Your task to perform on an android device: Is it going to rain this weekend? Image 0: 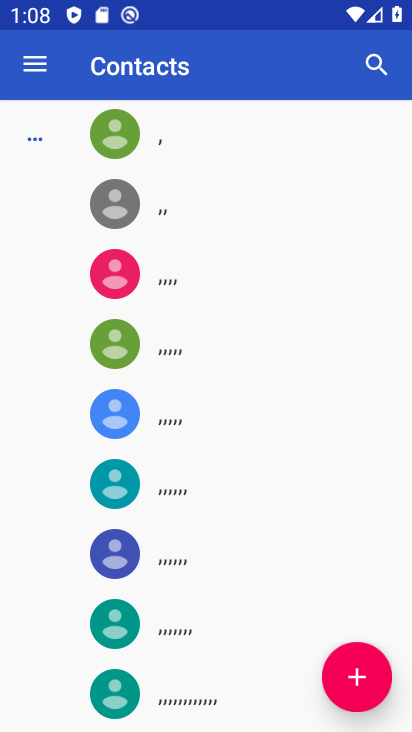
Step 0: press back button
Your task to perform on an android device: Is it going to rain this weekend? Image 1: 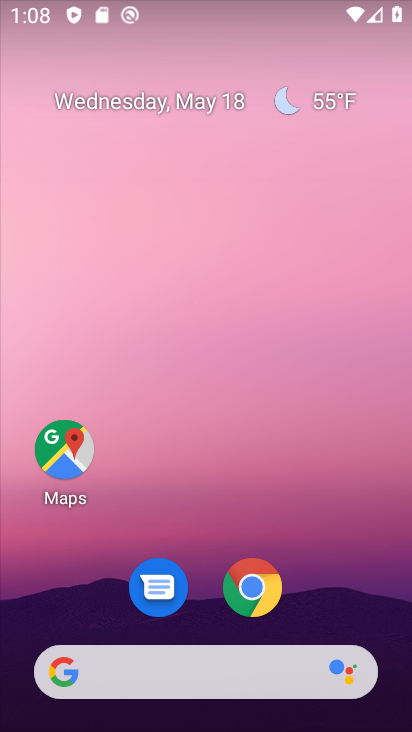
Step 1: click (336, 99)
Your task to perform on an android device: Is it going to rain this weekend? Image 2: 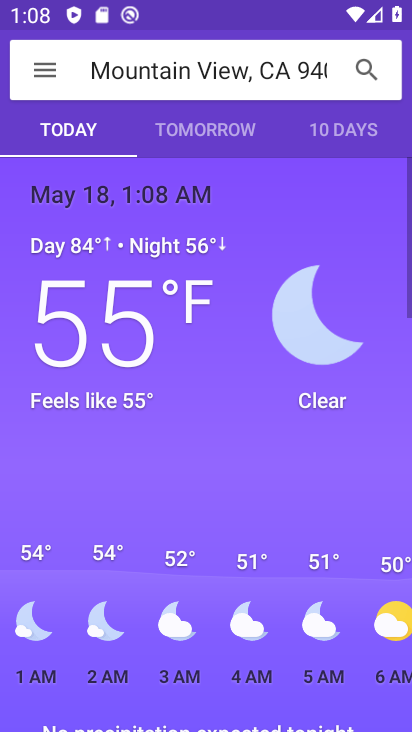
Step 2: click (333, 120)
Your task to perform on an android device: Is it going to rain this weekend? Image 3: 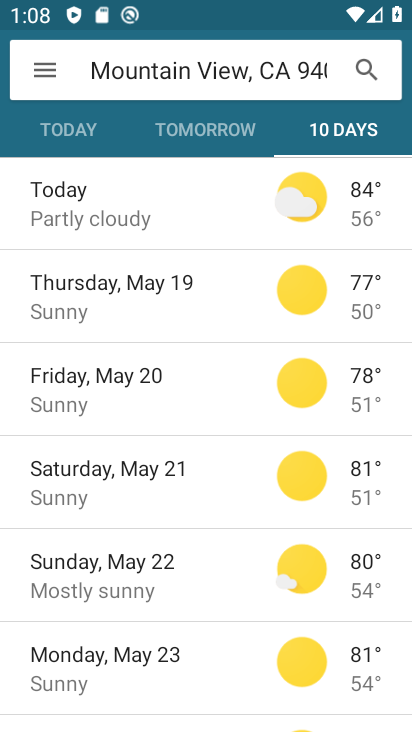
Step 3: task complete